Your task to perform on an android device: open a new tab in the chrome app Image 0: 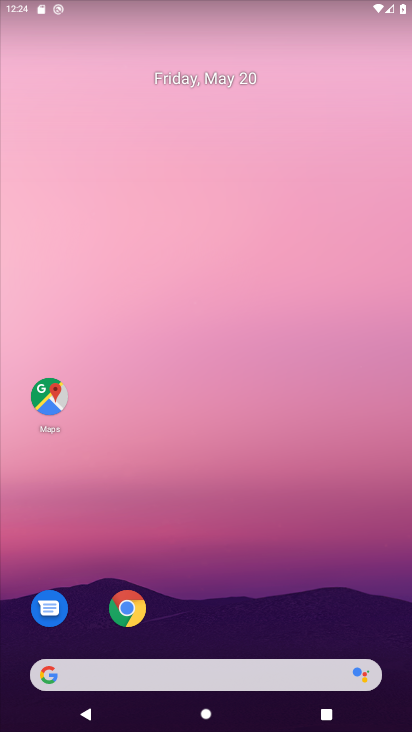
Step 0: press home button
Your task to perform on an android device: open a new tab in the chrome app Image 1: 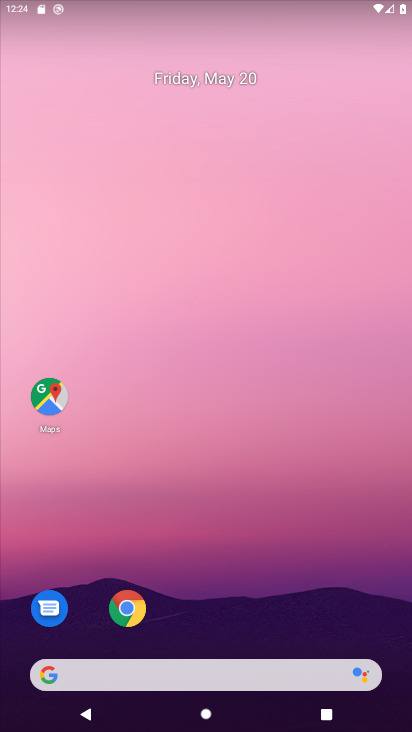
Step 1: click (152, 602)
Your task to perform on an android device: open a new tab in the chrome app Image 2: 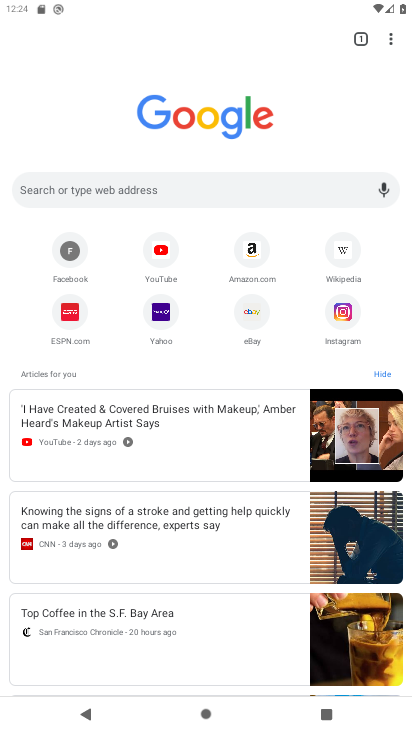
Step 2: task complete